Your task to perform on an android device: Open Maps and search for coffee Image 0: 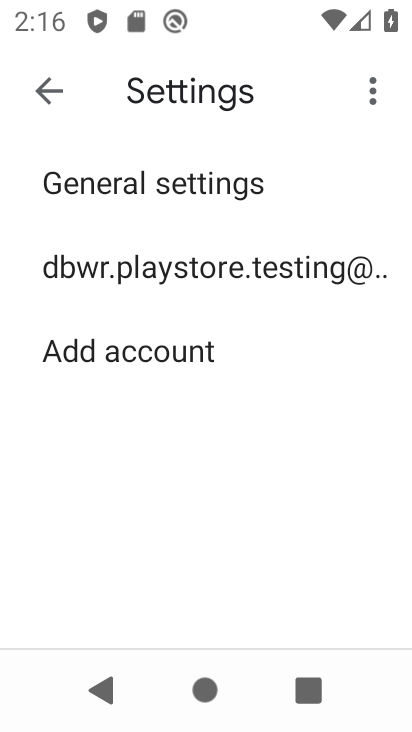
Step 0: press home button
Your task to perform on an android device: Open Maps and search for coffee Image 1: 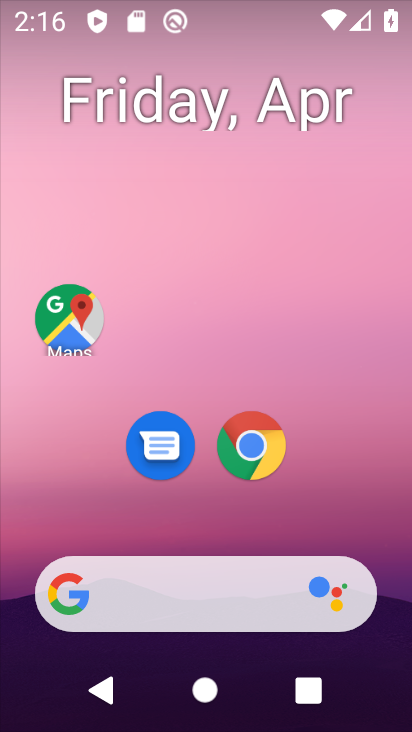
Step 1: click (67, 323)
Your task to perform on an android device: Open Maps and search for coffee Image 2: 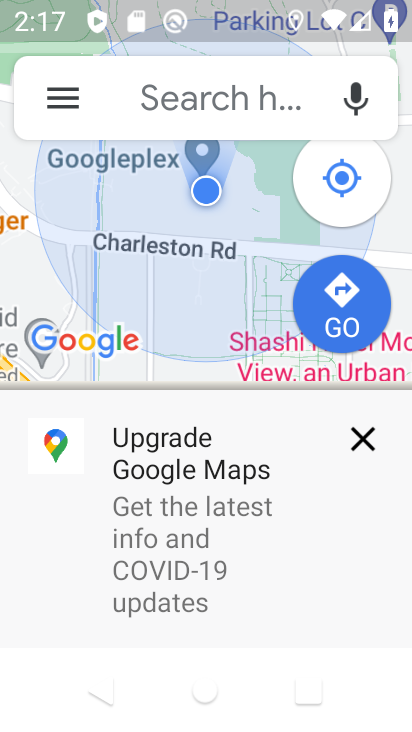
Step 2: click (204, 75)
Your task to perform on an android device: Open Maps and search for coffee Image 3: 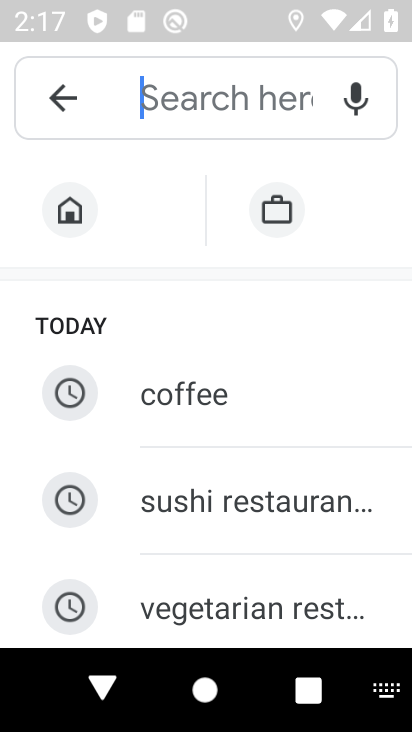
Step 3: type "coffee"
Your task to perform on an android device: Open Maps and search for coffee Image 4: 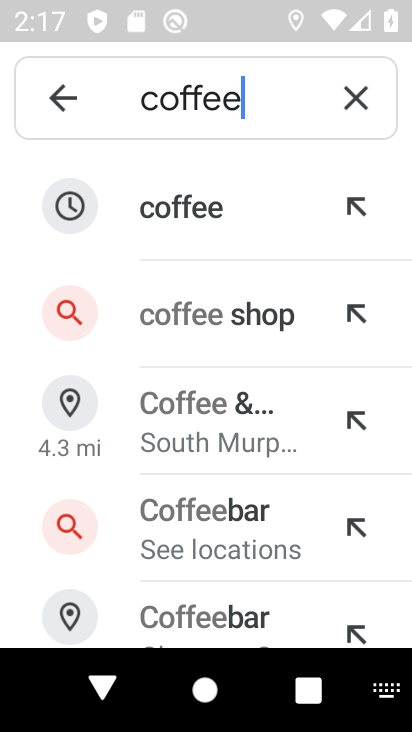
Step 4: click (200, 211)
Your task to perform on an android device: Open Maps and search for coffee Image 5: 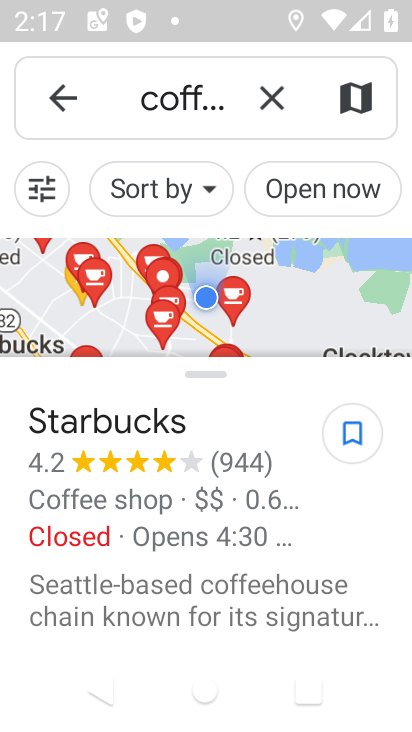
Step 5: task complete